Your task to perform on an android device: Do I have any events tomorrow? Image 0: 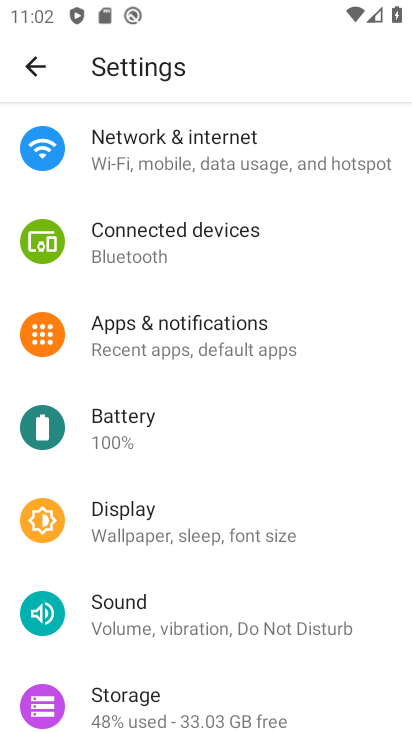
Step 0: press home button
Your task to perform on an android device: Do I have any events tomorrow? Image 1: 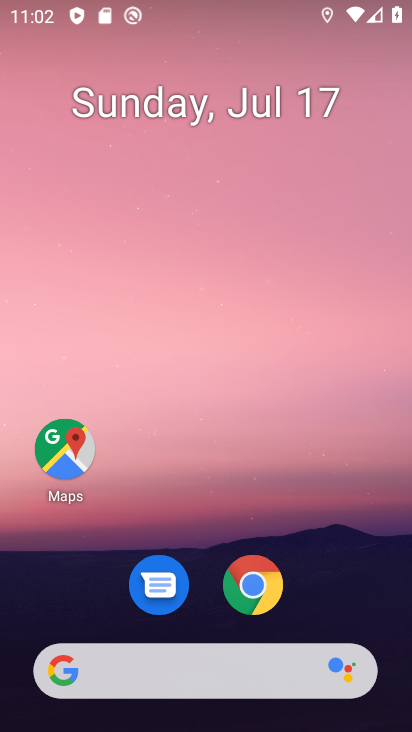
Step 1: drag from (325, 486) to (300, 28)
Your task to perform on an android device: Do I have any events tomorrow? Image 2: 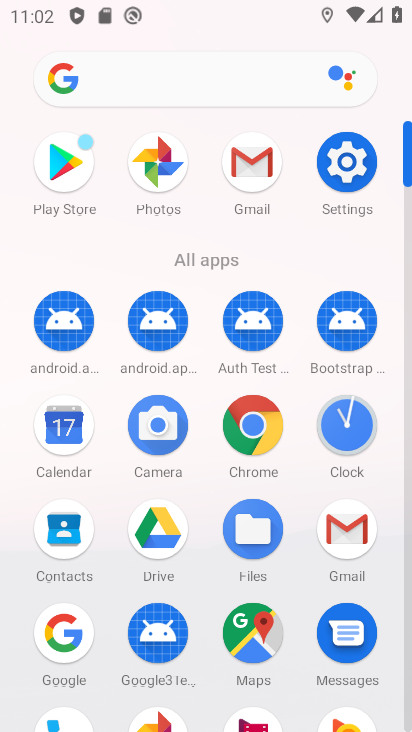
Step 2: click (81, 426)
Your task to perform on an android device: Do I have any events tomorrow? Image 3: 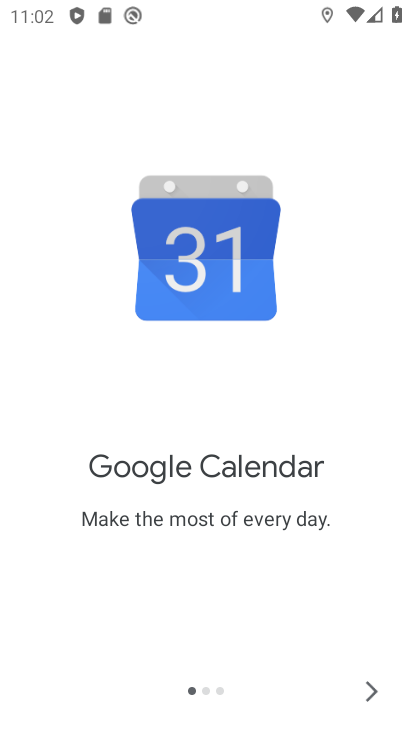
Step 3: click (373, 693)
Your task to perform on an android device: Do I have any events tomorrow? Image 4: 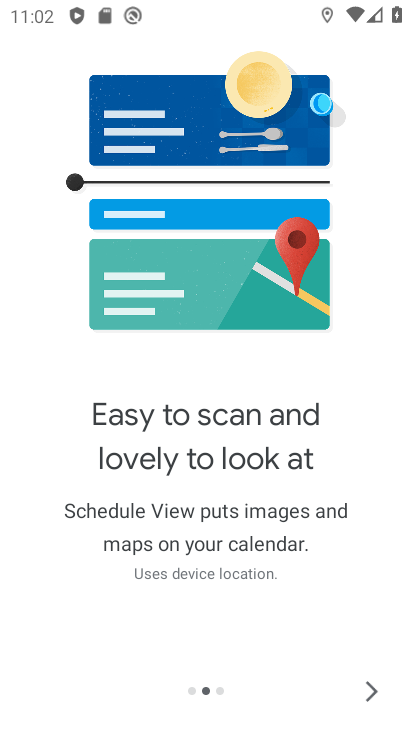
Step 4: click (373, 693)
Your task to perform on an android device: Do I have any events tomorrow? Image 5: 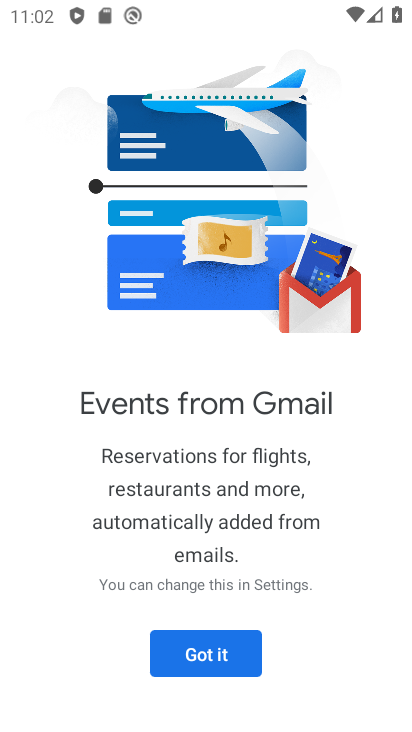
Step 5: click (222, 641)
Your task to perform on an android device: Do I have any events tomorrow? Image 6: 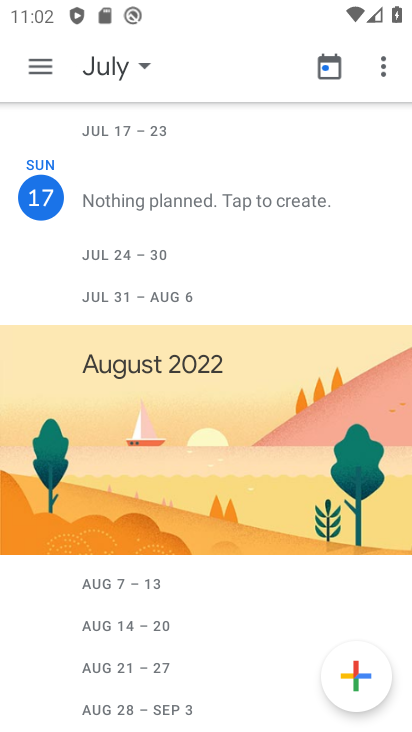
Step 6: click (43, 60)
Your task to perform on an android device: Do I have any events tomorrow? Image 7: 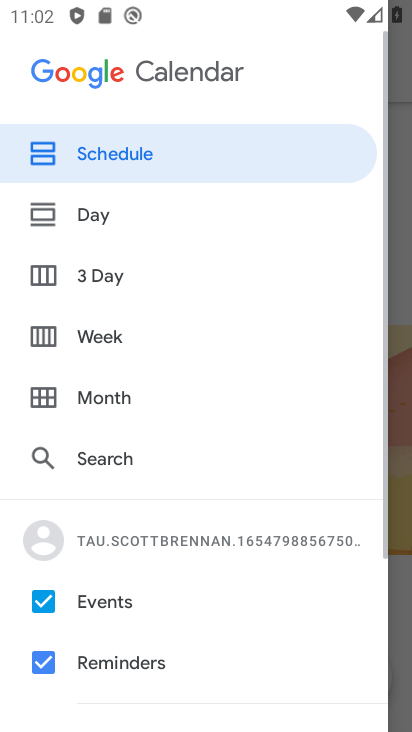
Step 7: click (34, 280)
Your task to perform on an android device: Do I have any events tomorrow? Image 8: 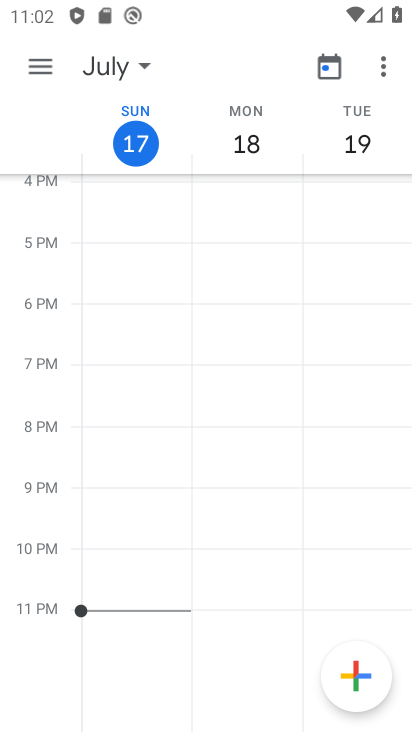
Step 8: task complete